Your task to perform on an android device: make emails show in primary in the gmail app Image 0: 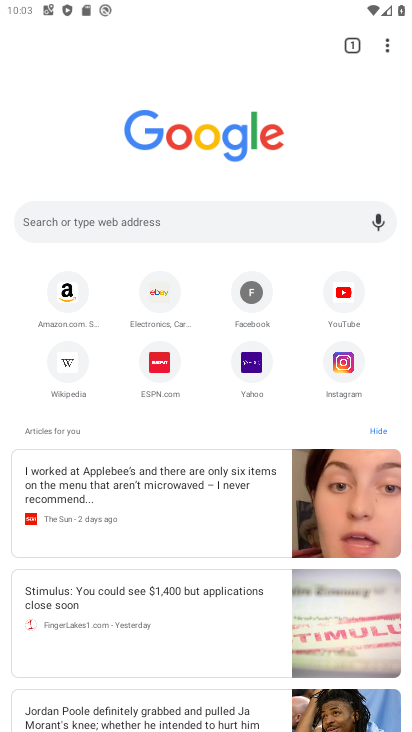
Step 0: press home button
Your task to perform on an android device: make emails show in primary in the gmail app Image 1: 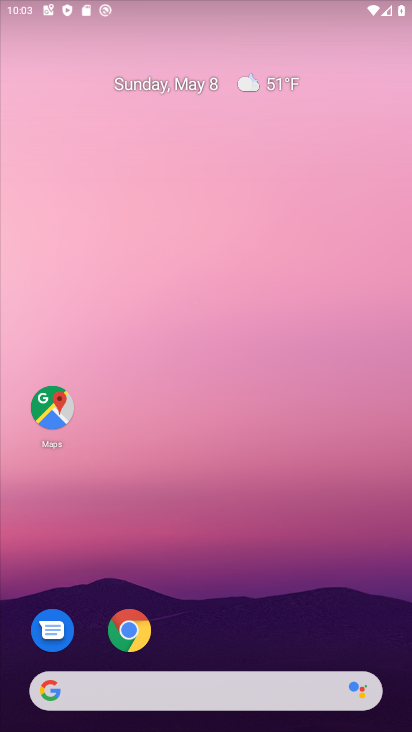
Step 1: drag from (336, 599) to (113, 85)
Your task to perform on an android device: make emails show in primary in the gmail app Image 2: 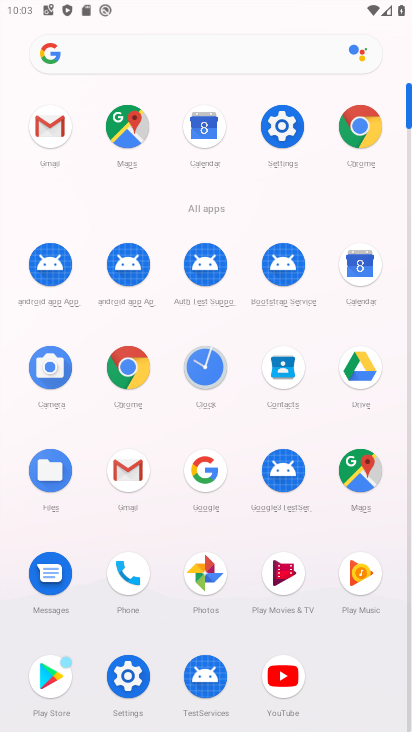
Step 2: click (136, 457)
Your task to perform on an android device: make emails show in primary in the gmail app Image 3: 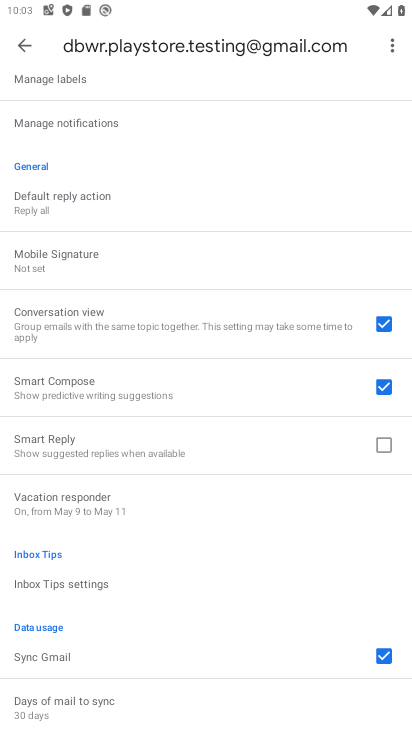
Step 3: drag from (194, 179) to (204, 564)
Your task to perform on an android device: make emails show in primary in the gmail app Image 4: 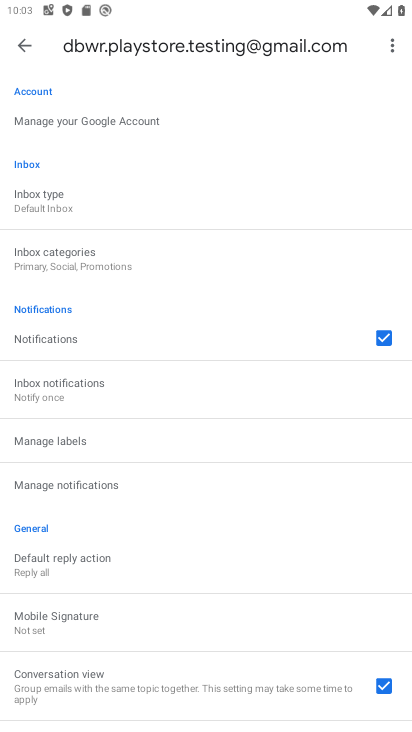
Step 4: click (24, 51)
Your task to perform on an android device: make emails show in primary in the gmail app Image 5: 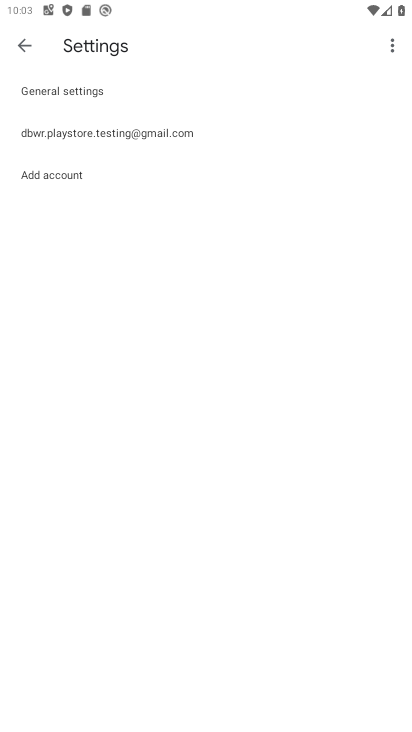
Step 5: press back button
Your task to perform on an android device: make emails show in primary in the gmail app Image 6: 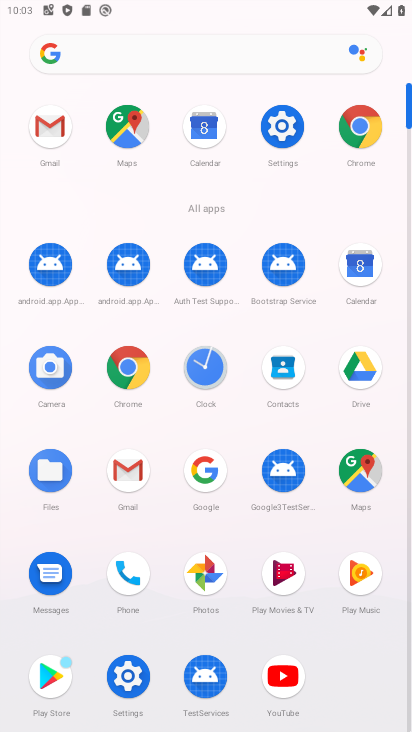
Step 6: click (132, 466)
Your task to perform on an android device: make emails show in primary in the gmail app Image 7: 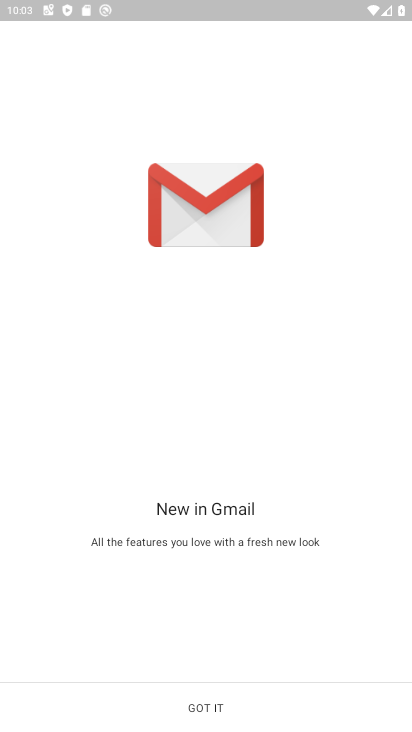
Step 7: click (230, 694)
Your task to perform on an android device: make emails show in primary in the gmail app Image 8: 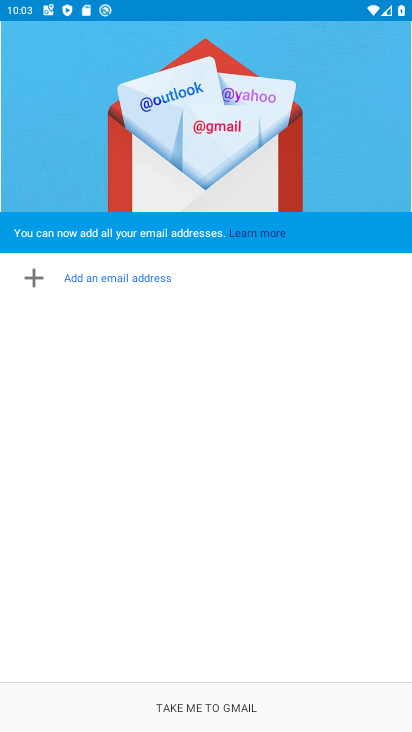
Step 8: click (230, 694)
Your task to perform on an android device: make emails show in primary in the gmail app Image 9: 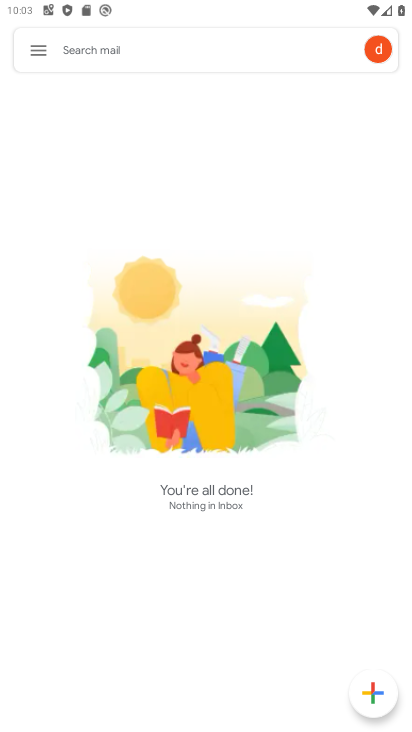
Step 9: task complete